Your task to perform on an android device: snooze an email in the gmail app Image 0: 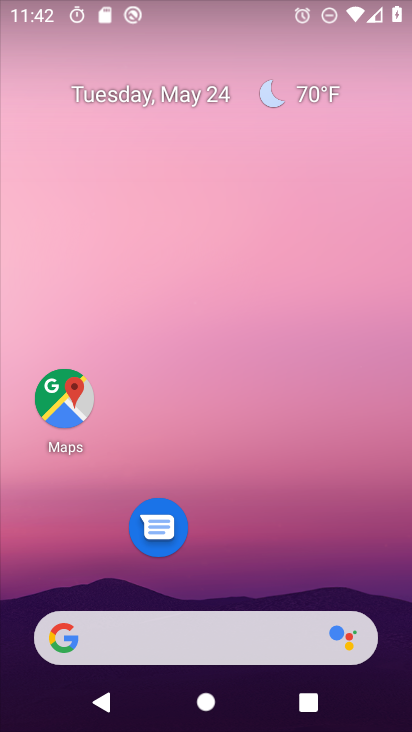
Step 0: drag from (247, 541) to (265, 31)
Your task to perform on an android device: snooze an email in the gmail app Image 1: 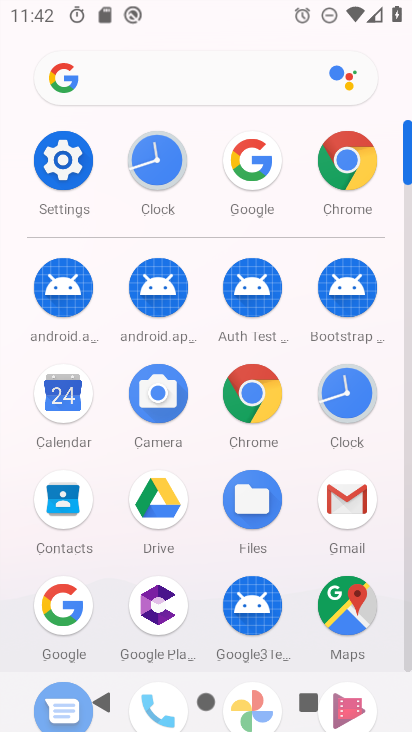
Step 1: click (346, 496)
Your task to perform on an android device: snooze an email in the gmail app Image 2: 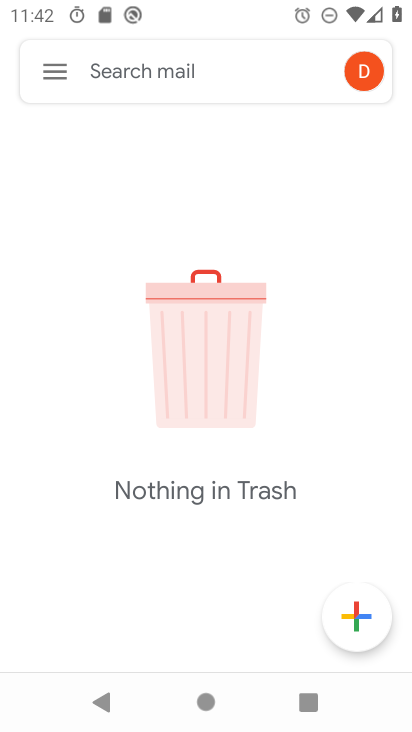
Step 2: click (43, 71)
Your task to perform on an android device: snooze an email in the gmail app Image 3: 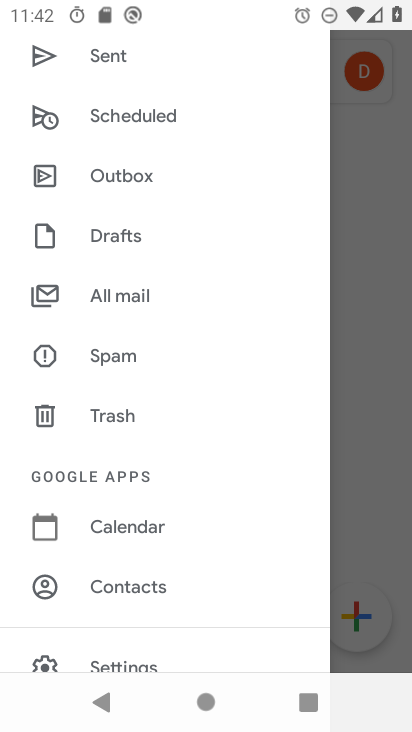
Step 3: click (155, 294)
Your task to perform on an android device: snooze an email in the gmail app Image 4: 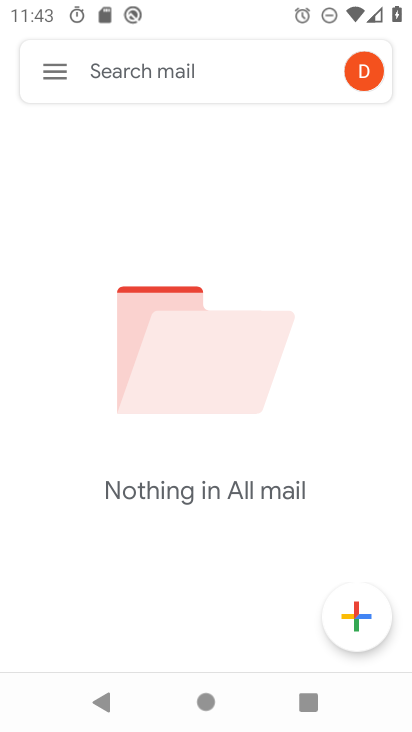
Step 4: task complete